Your task to perform on an android device: Open Yahoo.com Image 0: 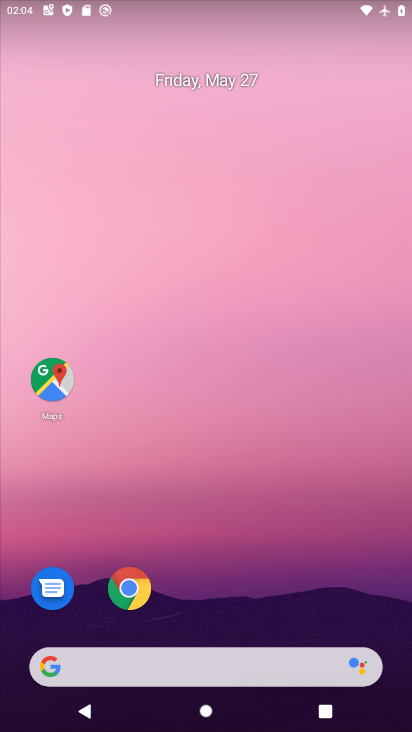
Step 0: click (130, 586)
Your task to perform on an android device: Open Yahoo.com Image 1: 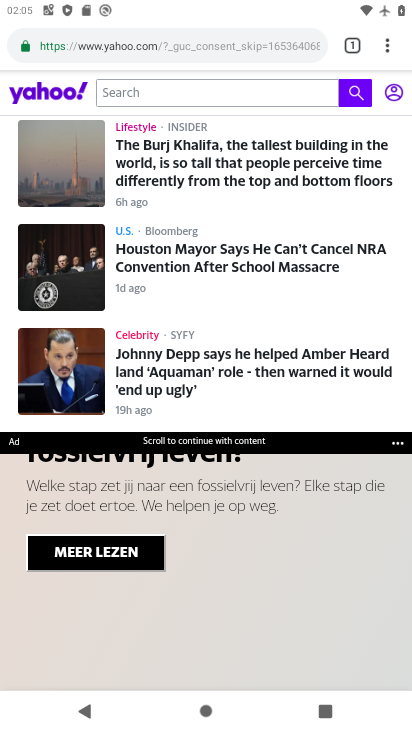
Step 1: task complete